Your task to perform on an android device: Open the phone app and click the voicemail tab. Image 0: 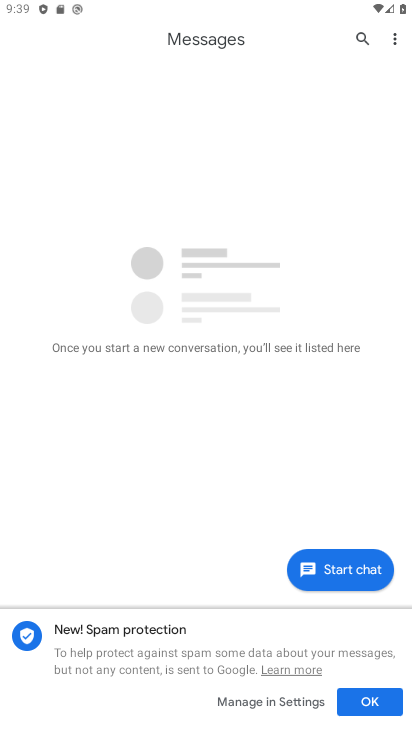
Step 0: press home button
Your task to perform on an android device: Open the phone app and click the voicemail tab. Image 1: 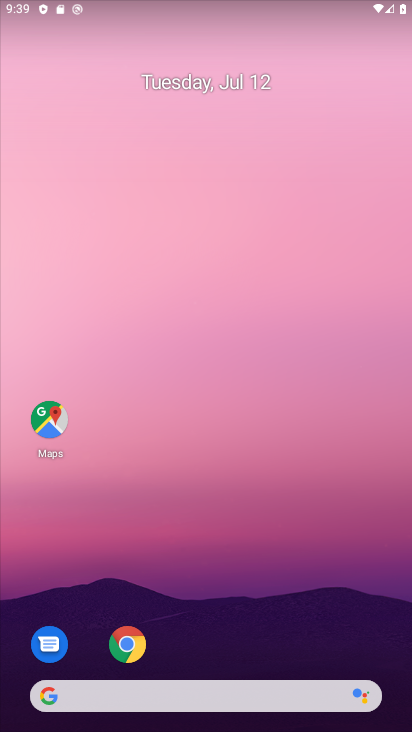
Step 1: drag from (188, 692) to (195, 130)
Your task to perform on an android device: Open the phone app and click the voicemail tab. Image 2: 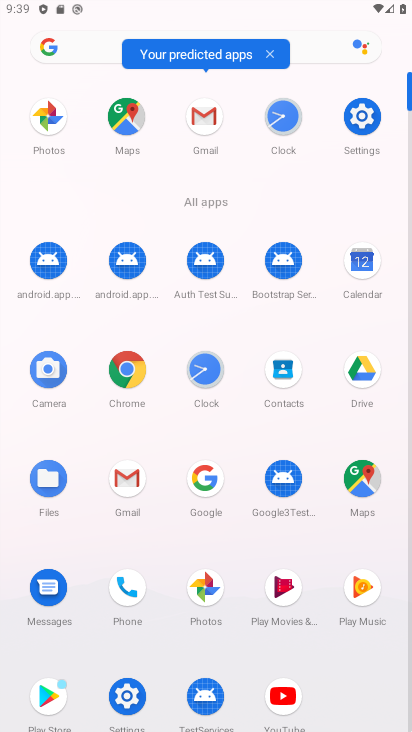
Step 2: click (129, 611)
Your task to perform on an android device: Open the phone app and click the voicemail tab. Image 3: 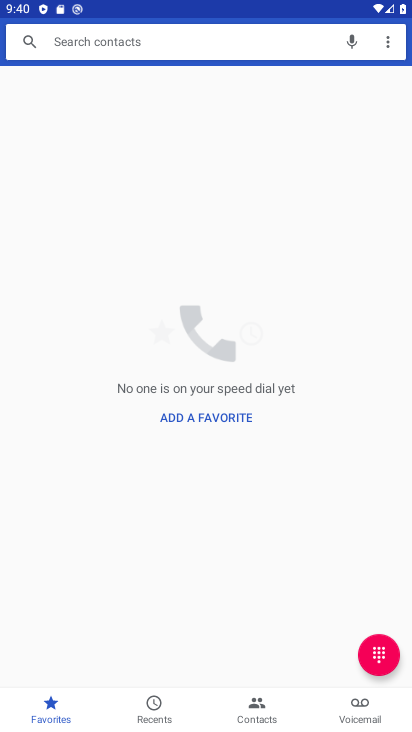
Step 3: click (351, 705)
Your task to perform on an android device: Open the phone app and click the voicemail tab. Image 4: 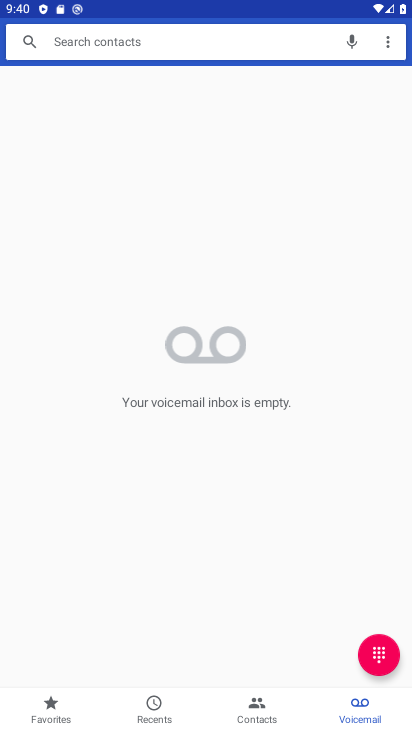
Step 4: task complete